Your task to perform on an android device: turn notification dots on Image 0: 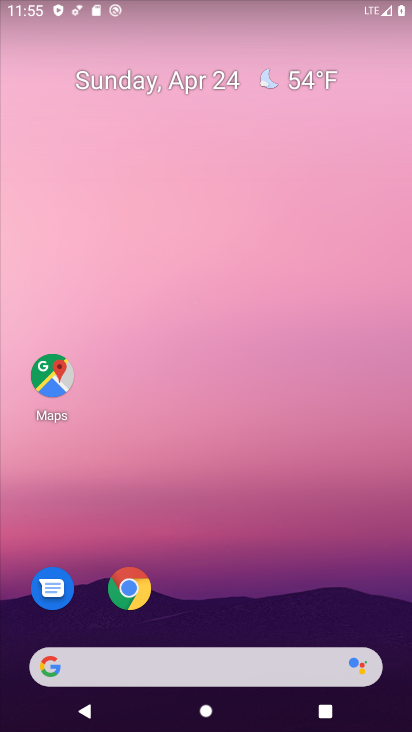
Step 0: drag from (201, 611) to (171, 0)
Your task to perform on an android device: turn notification dots on Image 1: 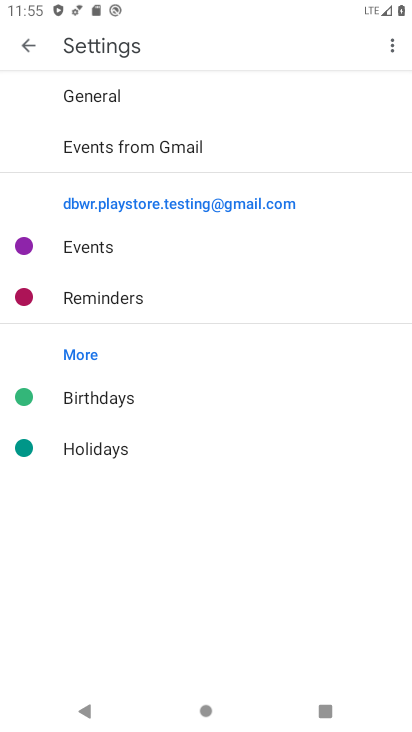
Step 1: press home button
Your task to perform on an android device: turn notification dots on Image 2: 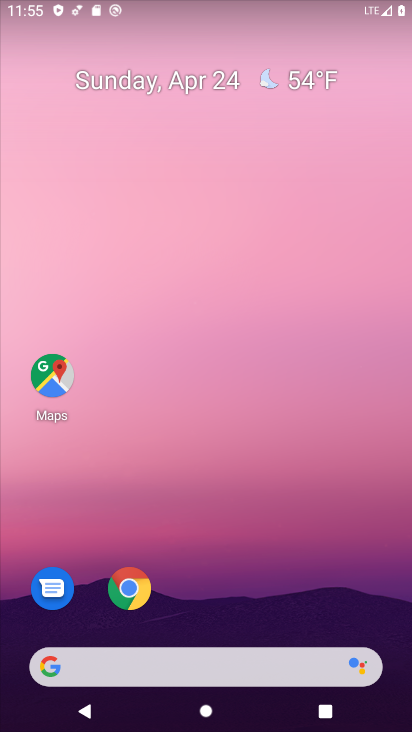
Step 2: drag from (212, 638) to (174, 104)
Your task to perform on an android device: turn notification dots on Image 3: 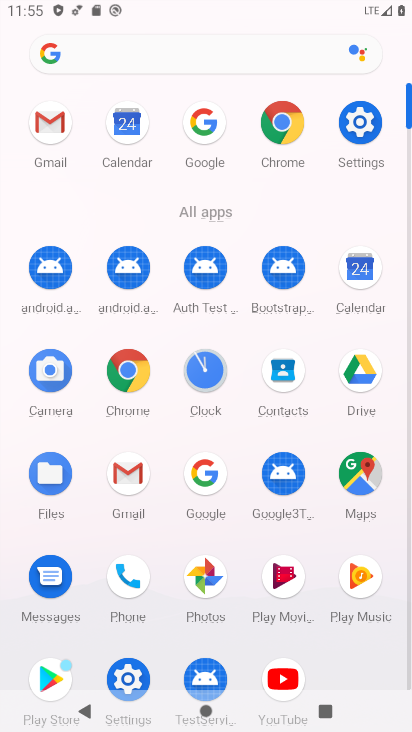
Step 3: click (144, 672)
Your task to perform on an android device: turn notification dots on Image 4: 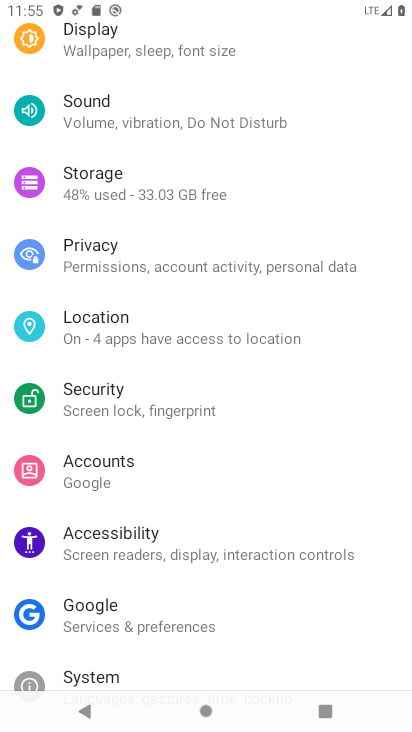
Step 4: drag from (126, 166) to (114, 728)
Your task to perform on an android device: turn notification dots on Image 5: 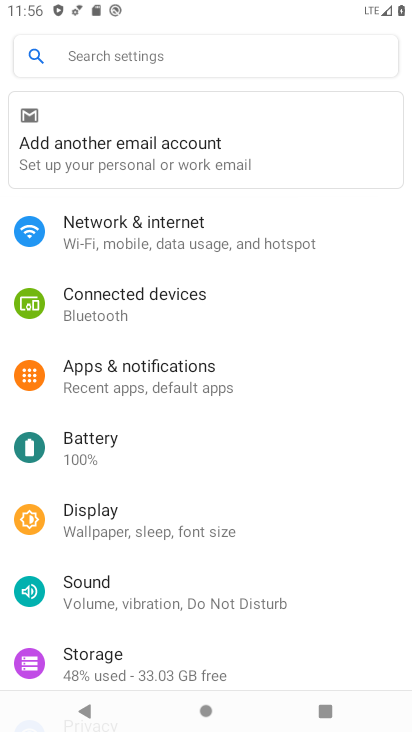
Step 5: click (143, 373)
Your task to perform on an android device: turn notification dots on Image 6: 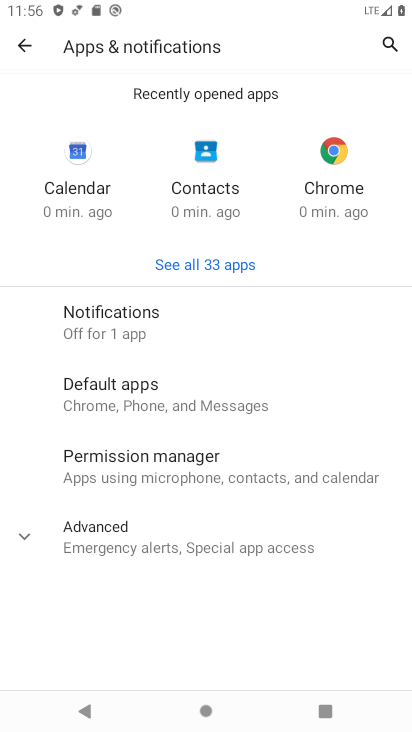
Step 6: click (111, 339)
Your task to perform on an android device: turn notification dots on Image 7: 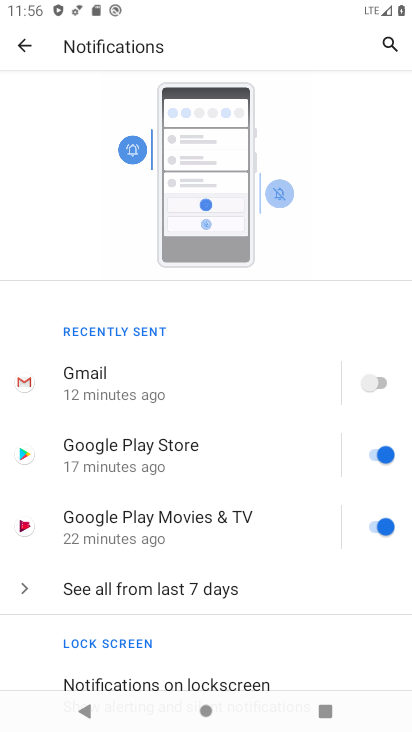
Step 7: drag from (219, 593) to (200, 226)
Your task to perform on an android device: turn notification dots on Image 8: 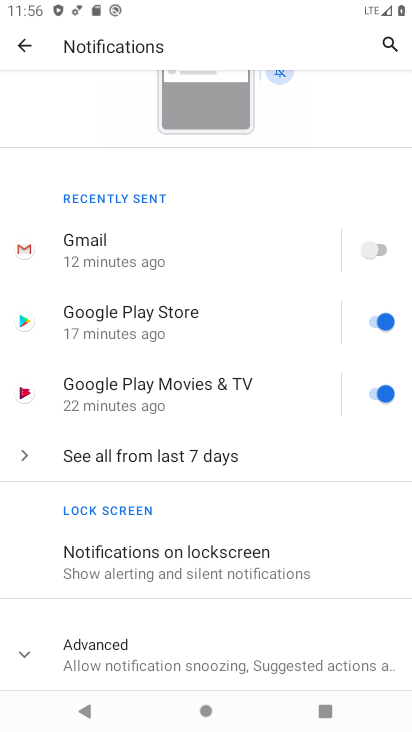
Step 8: click (205, 664)
Your task to perform on an android device: turn notification dots on Image 9: 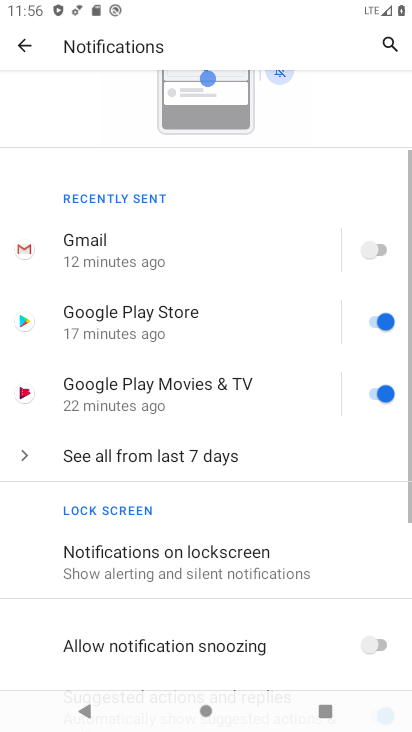
Step 9: task complete